Your task to perform on an android device: set the stopwatch Image 0: 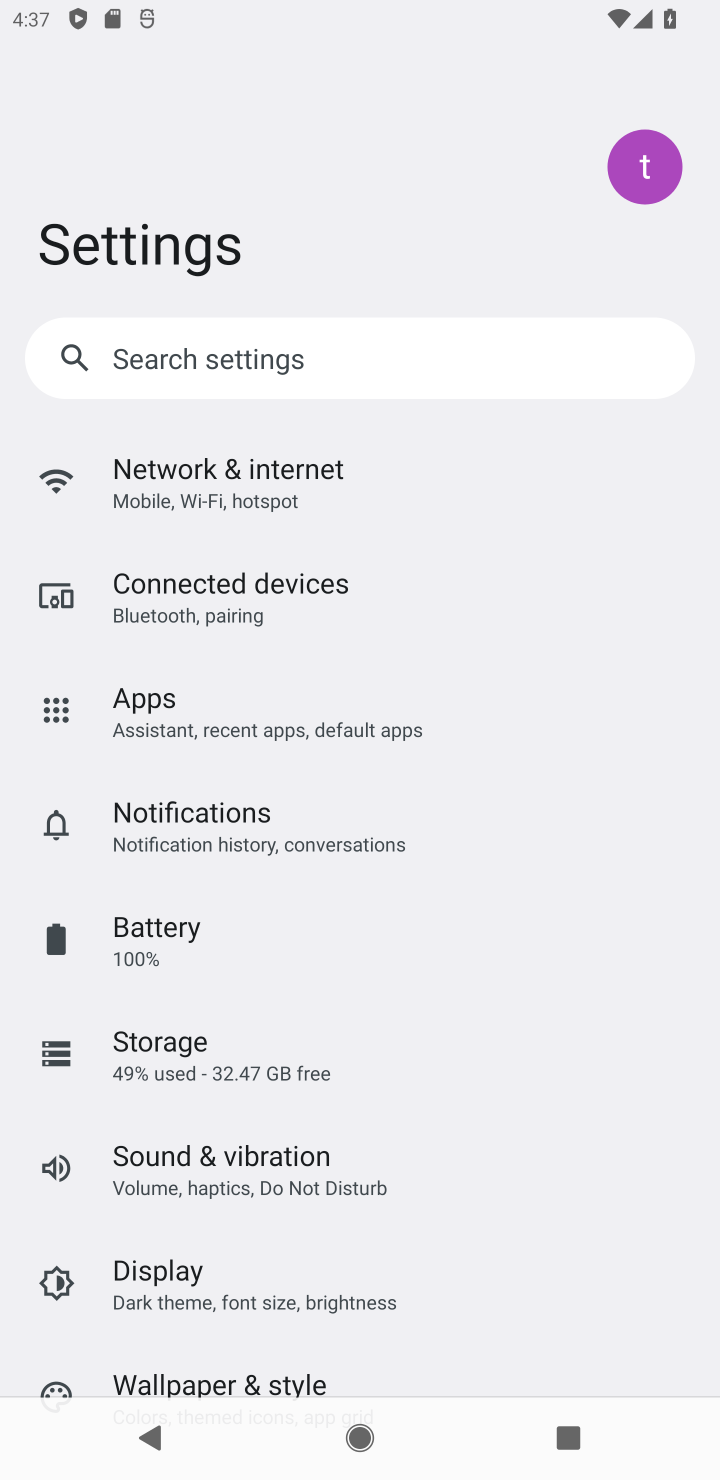
Step 0: press home button
Your task to perform on an android device: set the stopwatch Image 1: 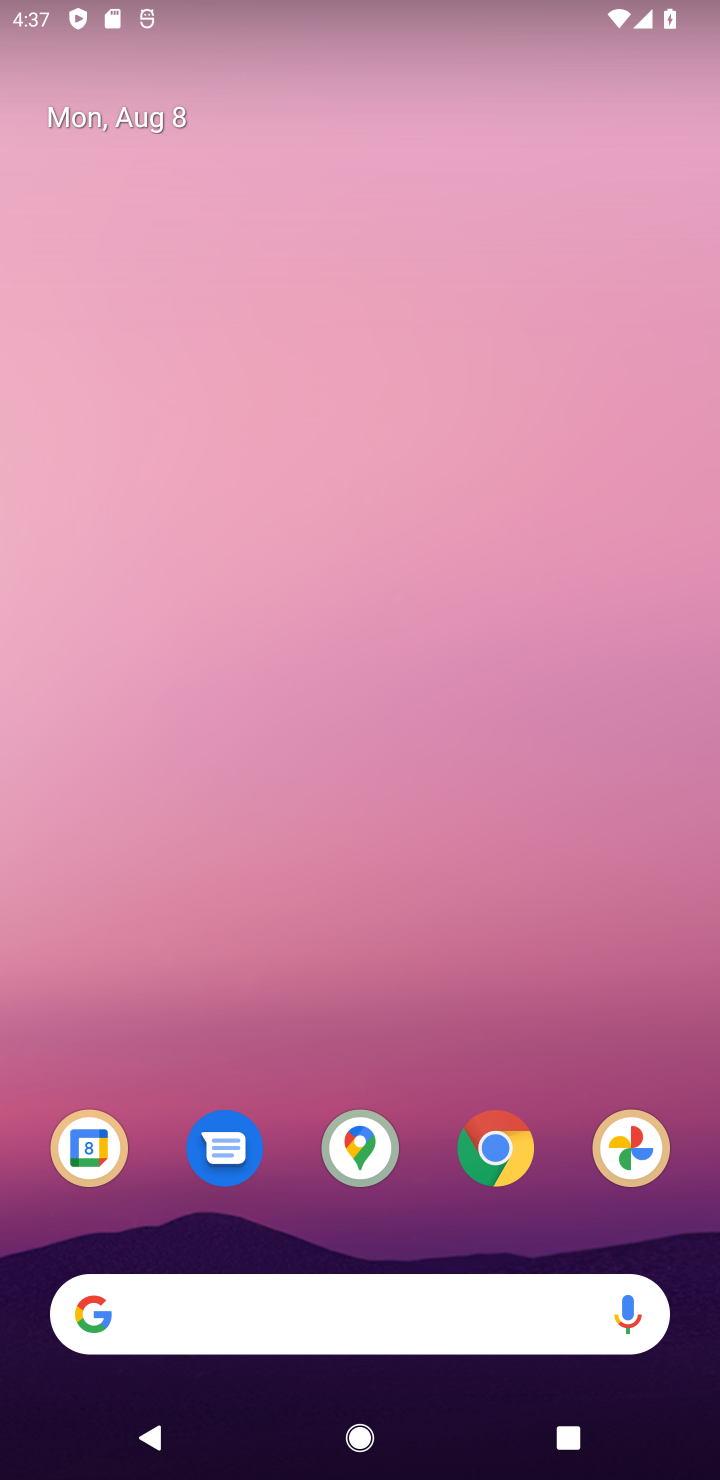
Step 1: drag from (288, 992) to (489, 113)
Your task to perform on an android device: set the stopwatch Image 2: 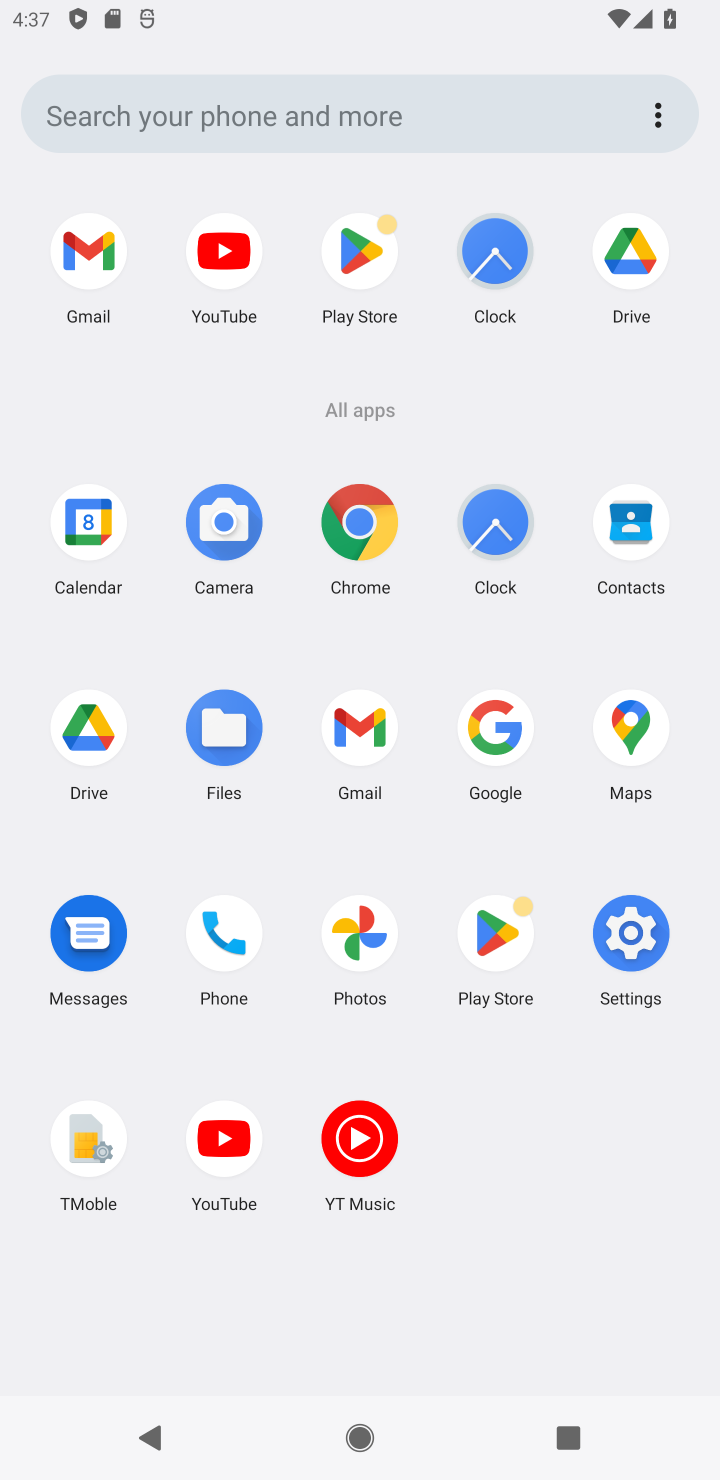
Step 2: click (488, 516)
Your task to perform on an android device: set the stopwatch Image 3: 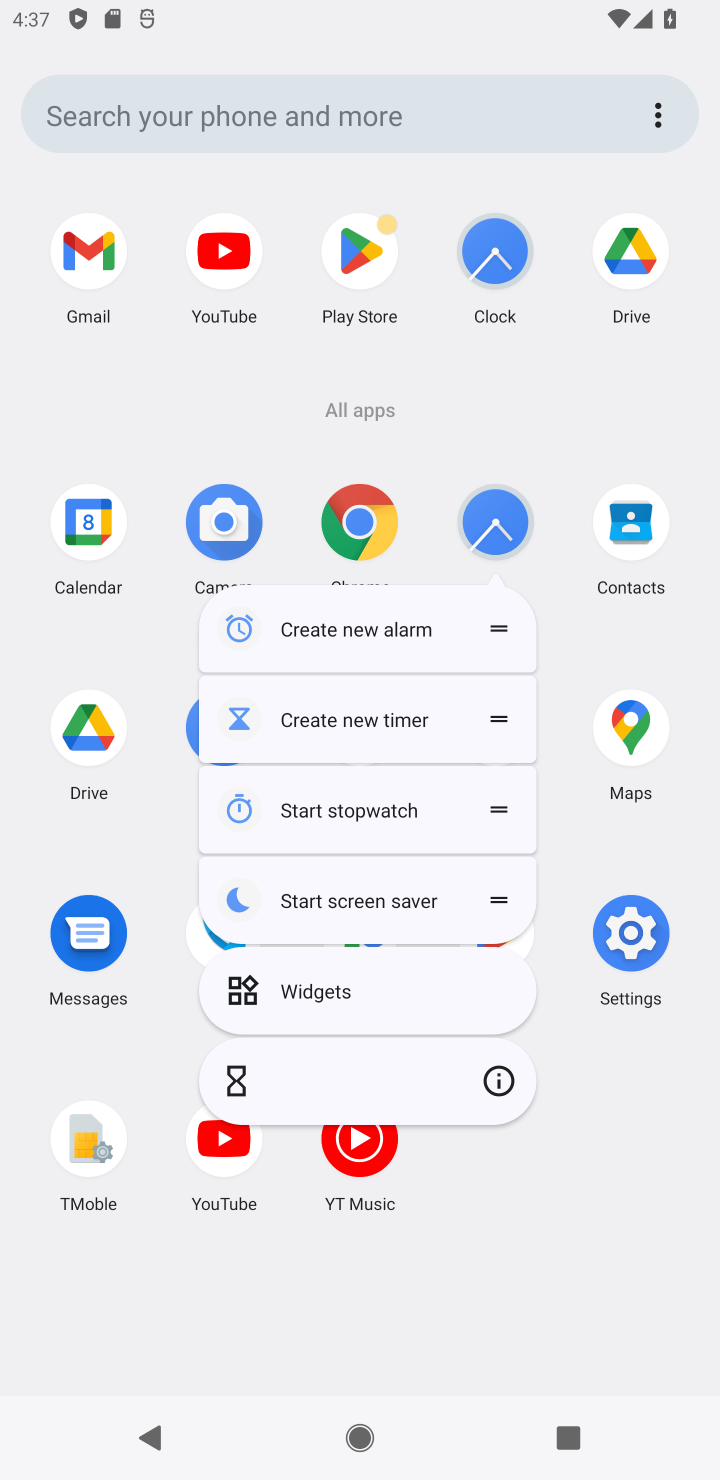
Step 3: click (488, 519)
Your task to perform on an android device: set the stopwatch Image 4: 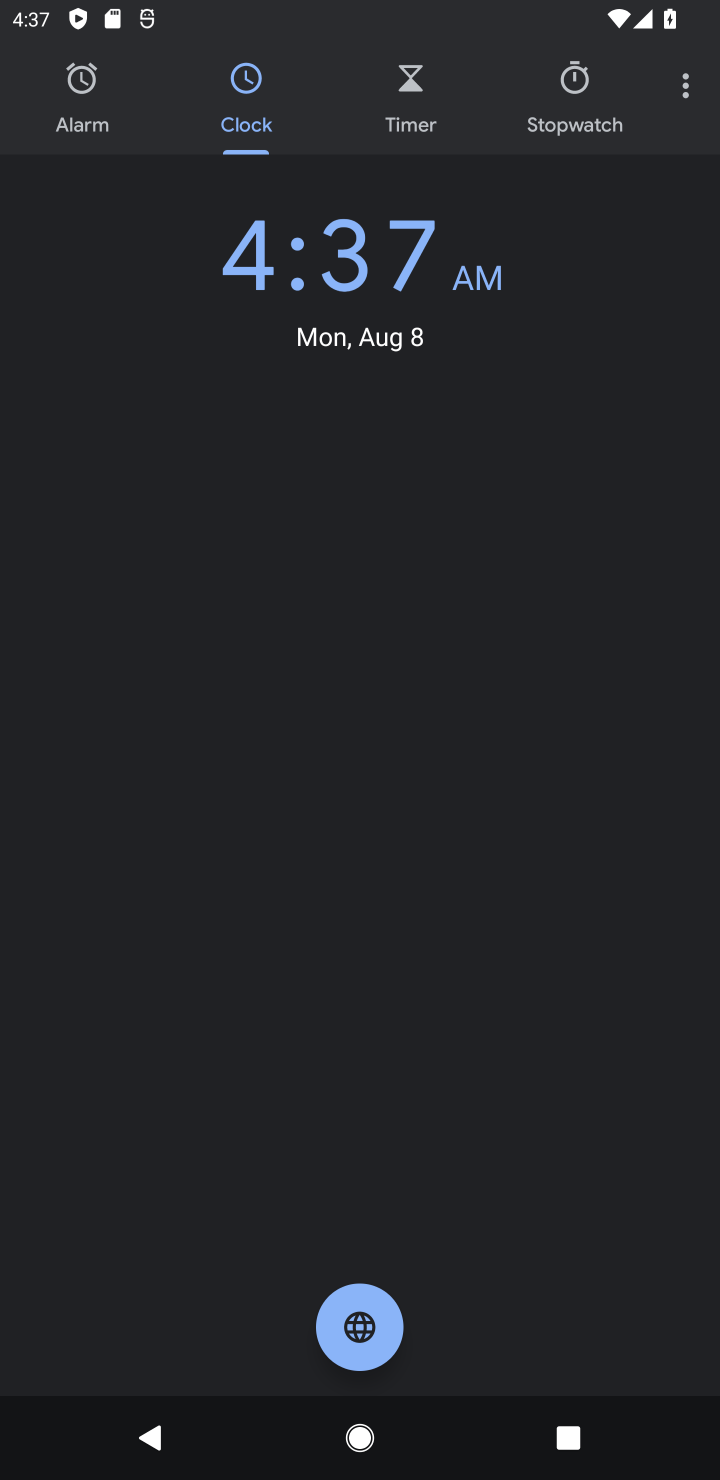
Step 4: click (576, 118)
Your task to perform on an android device: set the stopwatch Image 5: 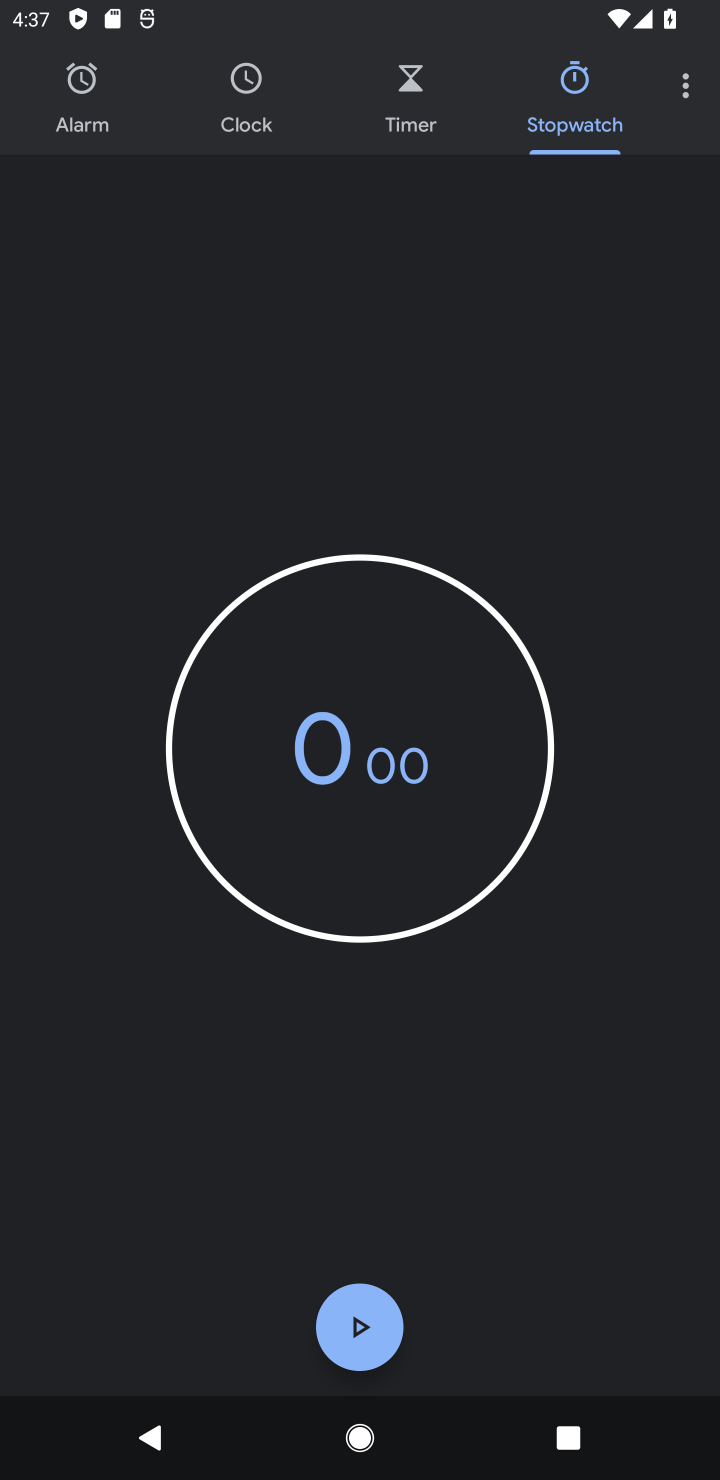
Step 5: click (369, 1336)
Your task to perform on an android device: set the stopwatch Image 6: 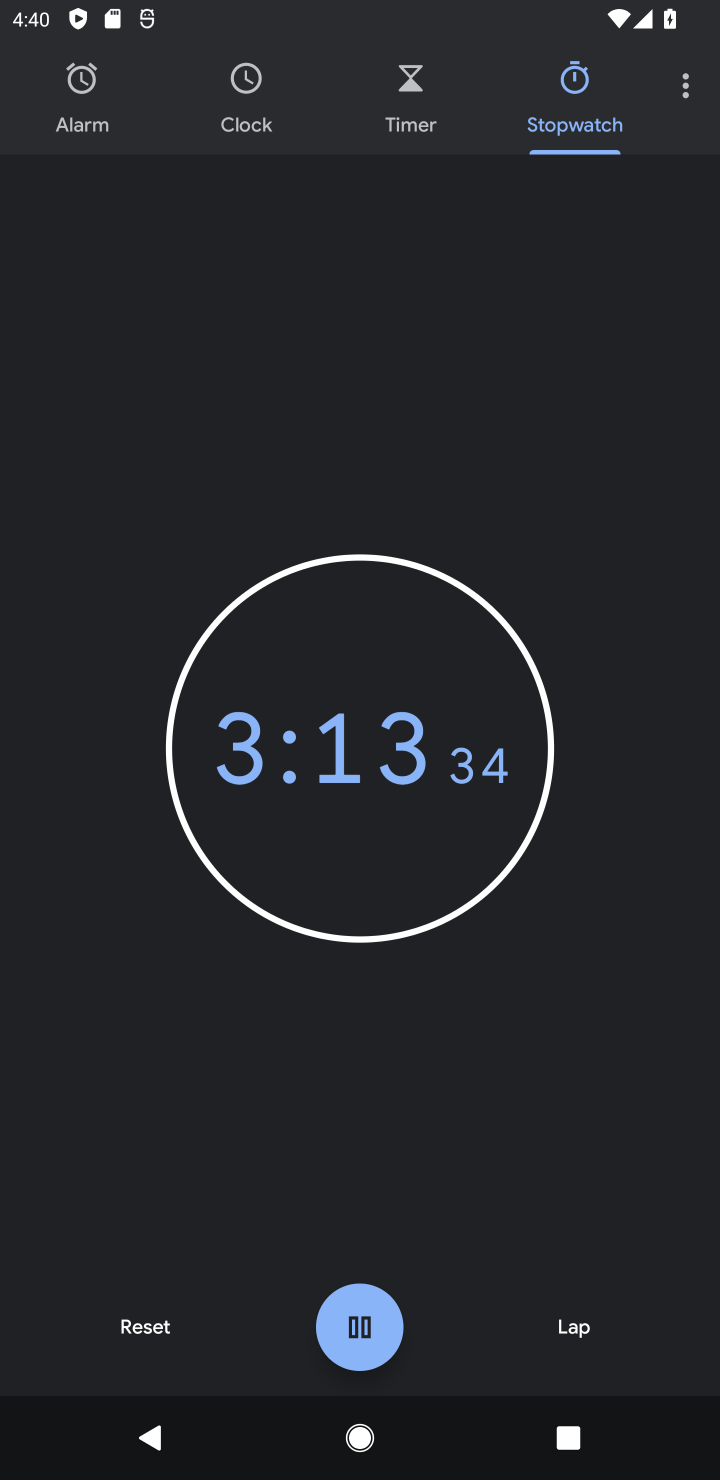
Step 6: task complete